Your task to perform on an android device: find which apps use the phone's location Image 0: 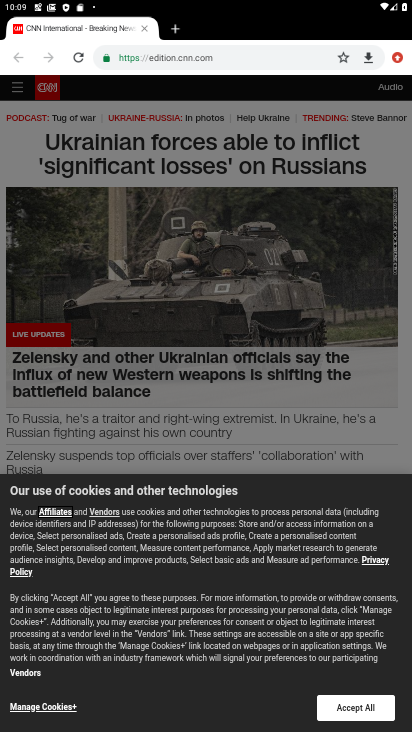
Step 0: press home button
Your task to perform on an android device: find which apps use the phone's location Image 1: 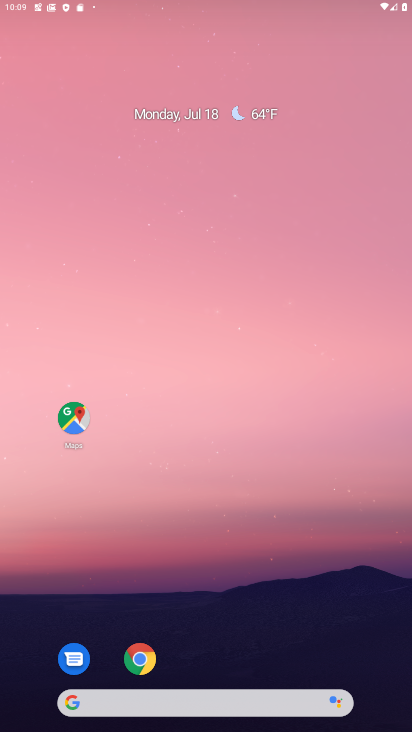
Step 1: drag from (206, 666) to (221, 111)
Your task to perform on an android device: find which apps use the phone's location Image 2: 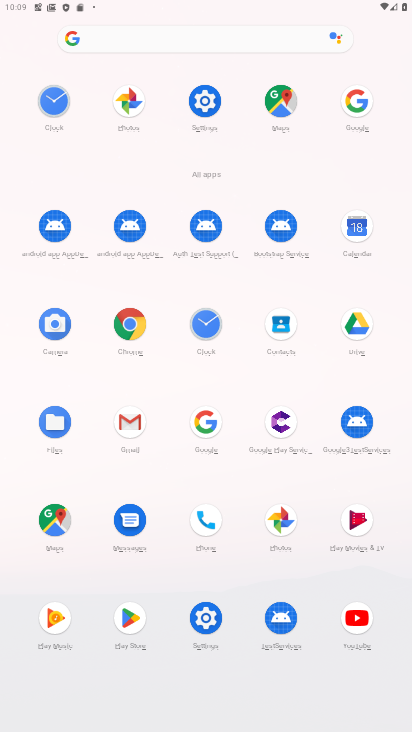
Step 2: click (205, 99)
Your task to perform on an android device: find which apps use the phone's location Image 3: 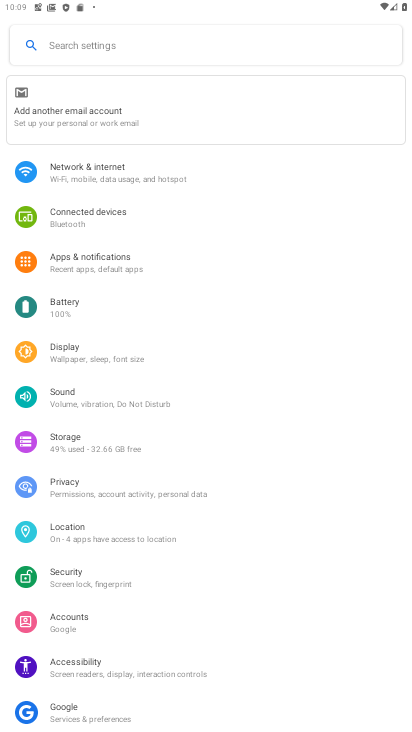
Step 3: click (79, 530)
Your task to perform on an android device: find which apps use the phone's location Image 4: 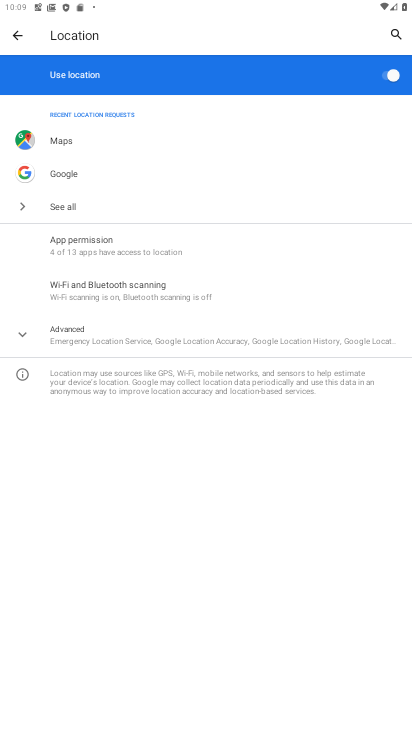
Step 4: click (99, 241)
Your task to perform on an android device: find which apps use the phone's location Image 5: 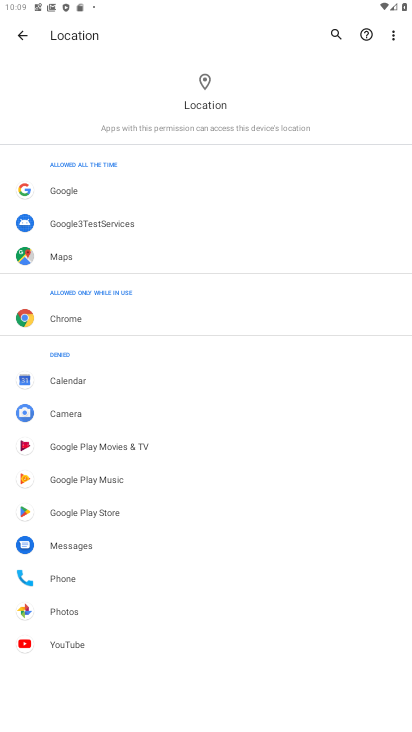
Step 5: task complete